Your task to perform on an android device: turn on improve location accuracy Image 0: 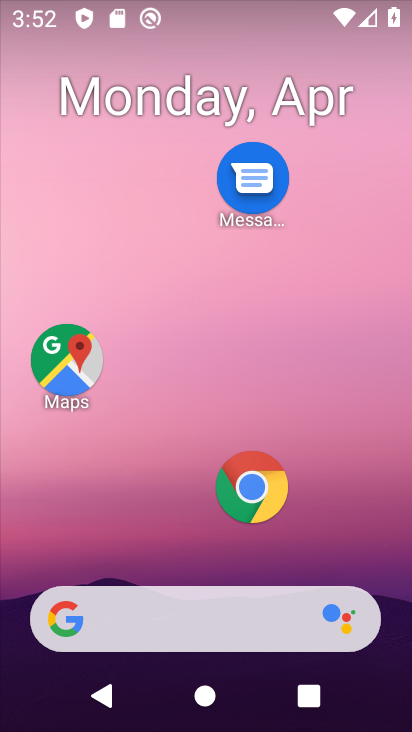
Step 0: drag from (200, 470) to (152, 18)
Your task to perform on an android device: turn on improve location accuracy Image 1: 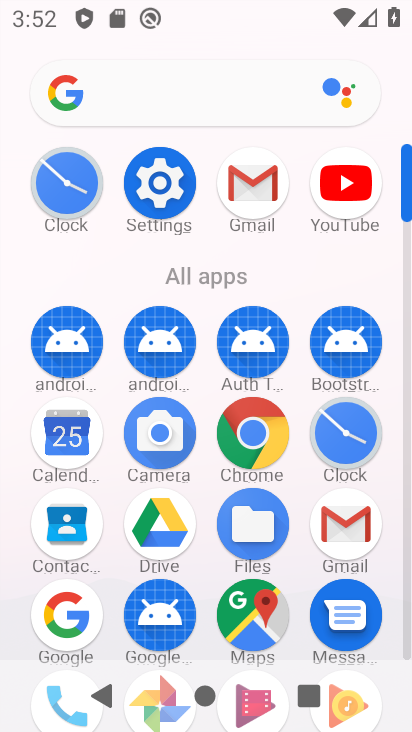
Step 1: click (181, 217)
Your task to perform on an android device: turn on improve location accuracy Image 2: 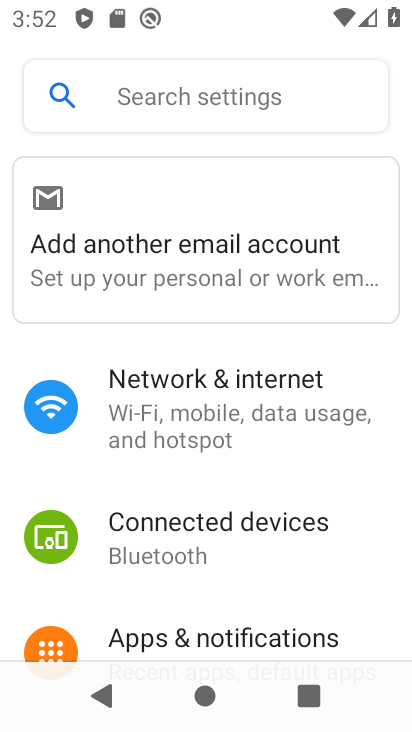
Step 2: drag from (194, 503) to (262, 208)
Your task to perform on an android device: turn on improve location accuracy Image 3: 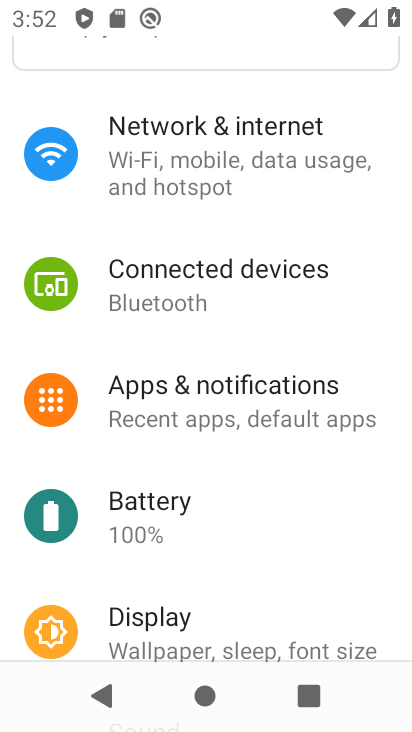
Step 3: drag from (199, 541) to (269, 162)
Your task to perform on an android device: turn on improve location accuracy Image 4: 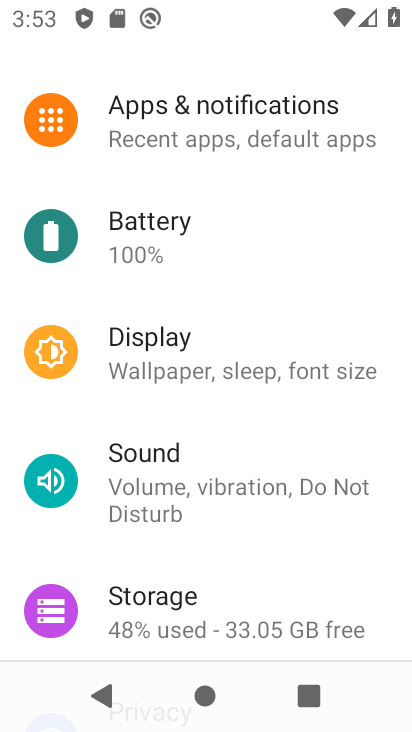
Step 4: drag from (265, 541) to (335, 164)
Your task to perform on an android device: turn on improve location accuracy Image 5: 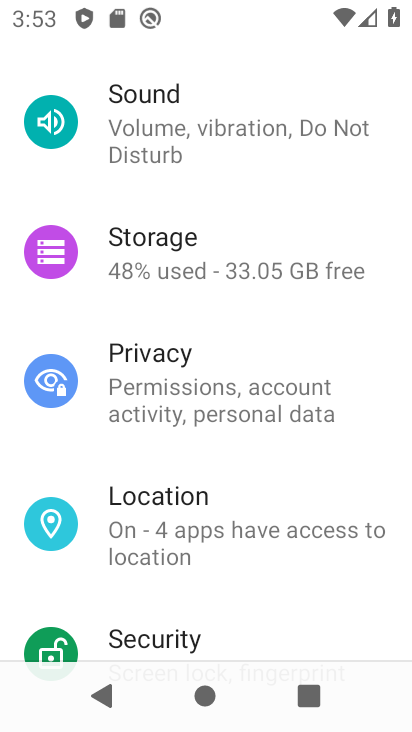
Step 5: click (198, 533)
Your task to perform on an android device: turn on improve location accuracy Image 6: 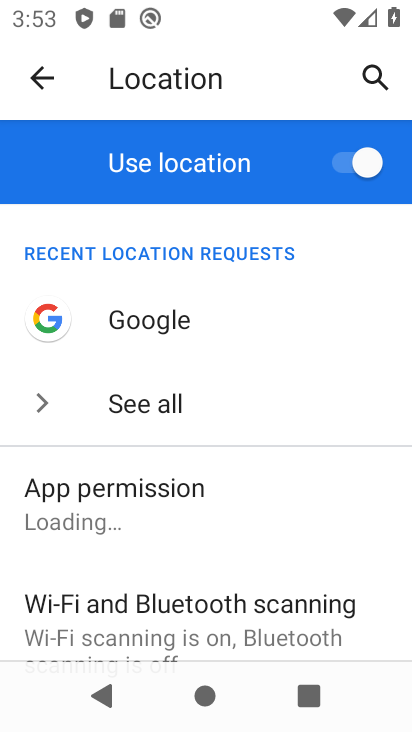
Step 6: drag from (169, 527) to (222, 226)
Your task to perform on an android device: turn on improve location accuracy Image 7: 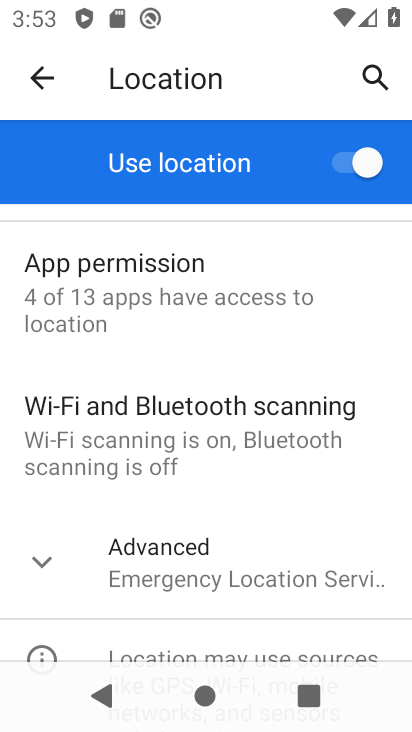
Step 7: click (164, 564)
Your task to perform on an android device: turn on improve location accuracy Image 8: 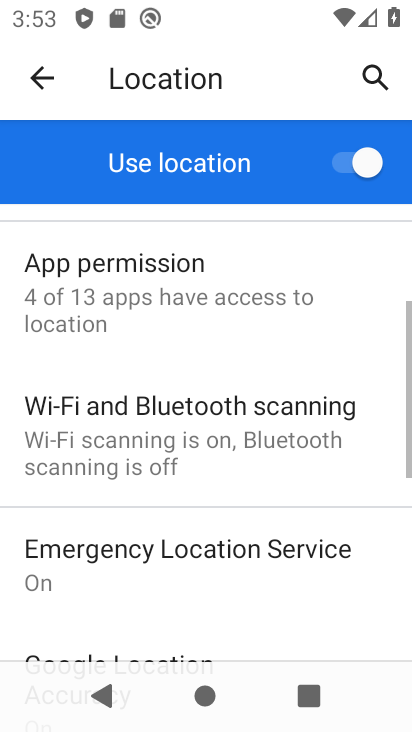
Step 8: drag from (162, 589) to (231, 329)
Your task to perform on an android device: turn on improve location accuracy Image 9: 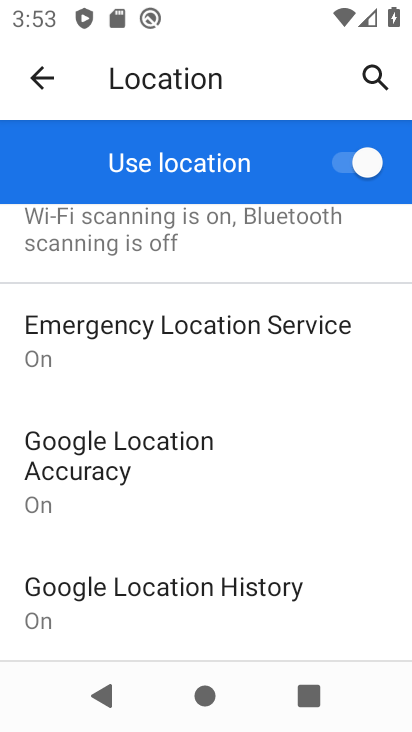
Step 9: click (144, 482)
Your task to perform on an android device: turn on improve location accuracy Image 10: 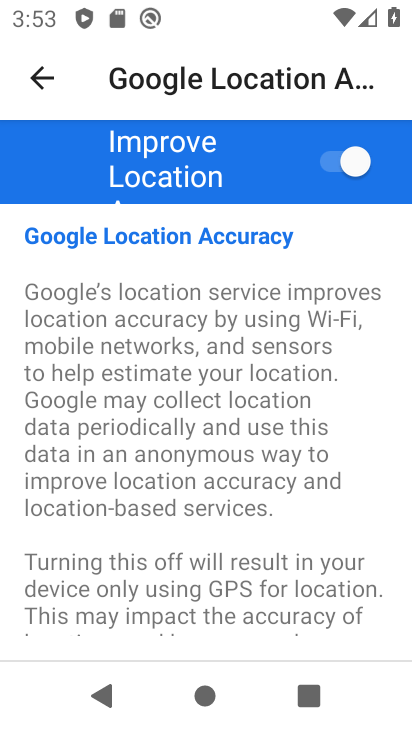
Step 10: task complete